Your task to perform on an android device: toggle javascript in the chrome app Image 0: 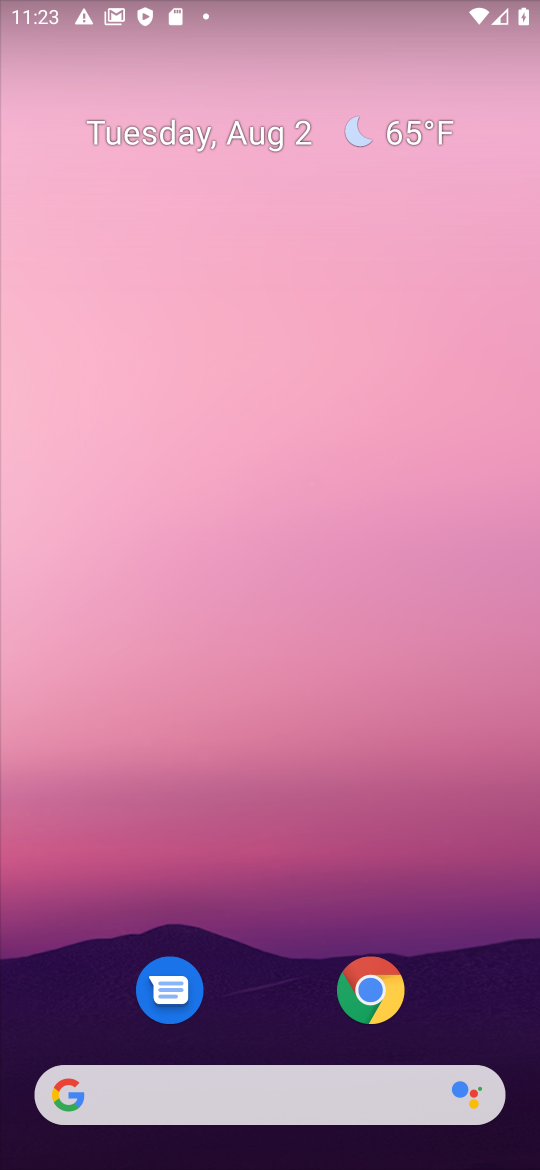
Step 0: drag from (274, 1004) to (365, 340)
Your task to perform on an android device: toggle javascript in the chrome app Image 1: 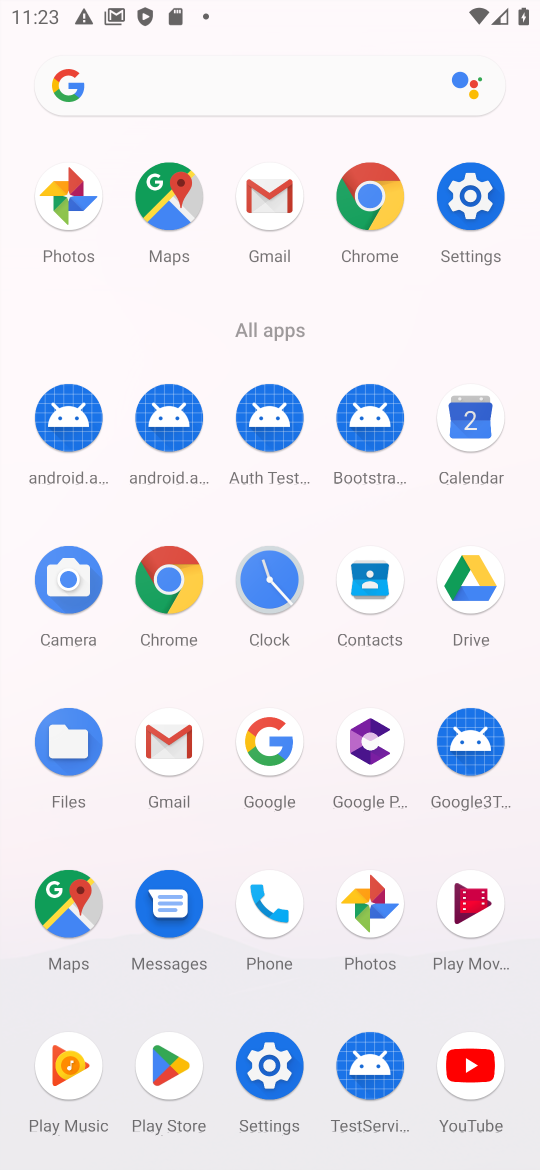
Step 1: click (147, 597)
Your task to perform on an android device: toggle javascript in the chrome app Image 2: 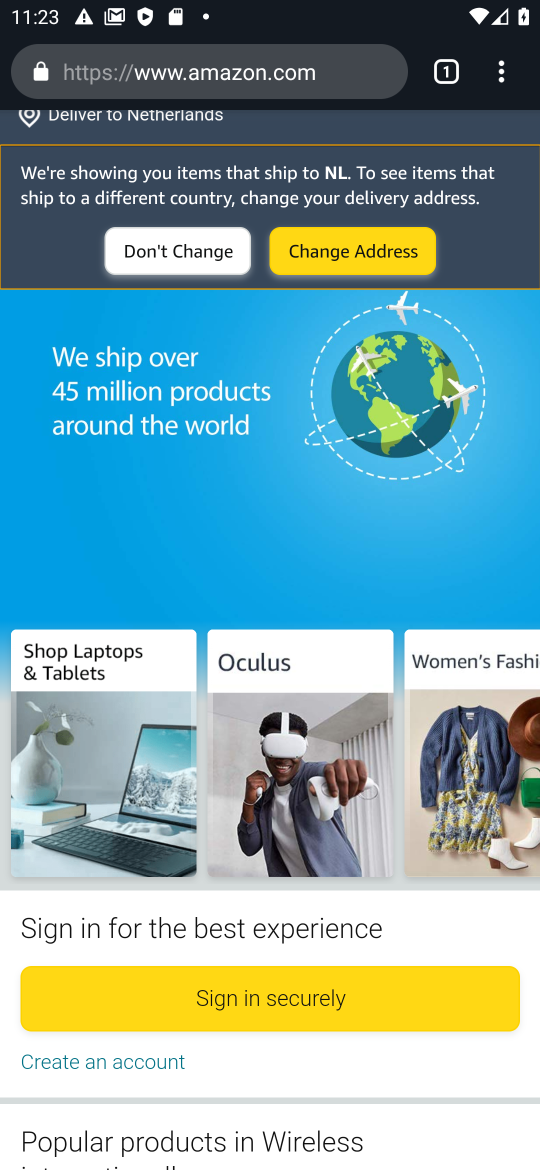
Step 2: click (516, 66)
Your task to perform on an android device: toggle javascript in the chrome app Image 3: 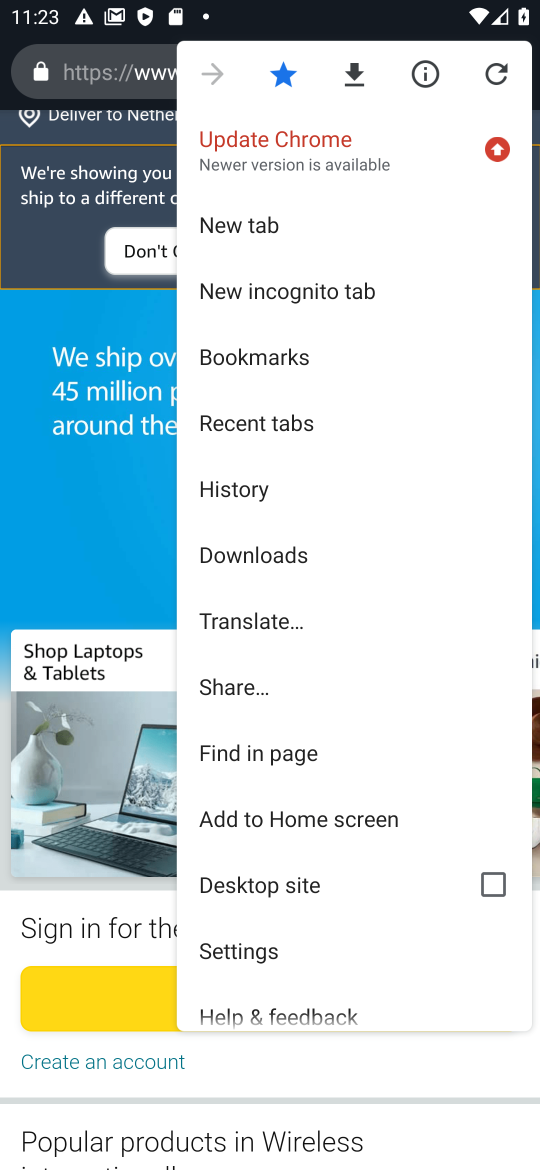
Step 3: click (237, 952)
Your task to perform on an android device: toggle javascript in the chrome app Image 4: 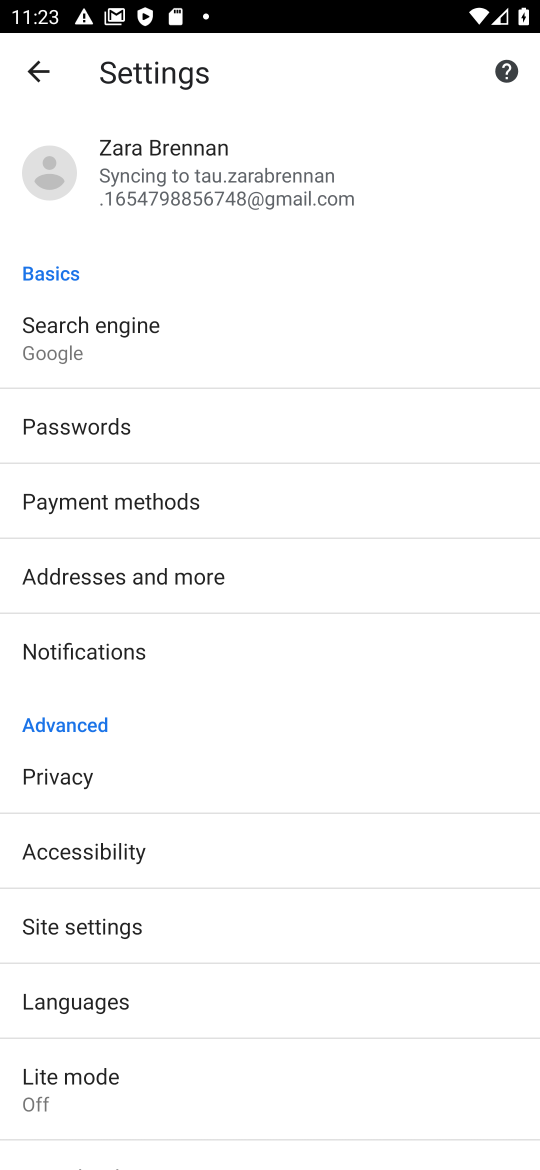
Step 4: click (122, 920)
Your task to perform on an android device: toggle javascript in the chrome app Image 5: 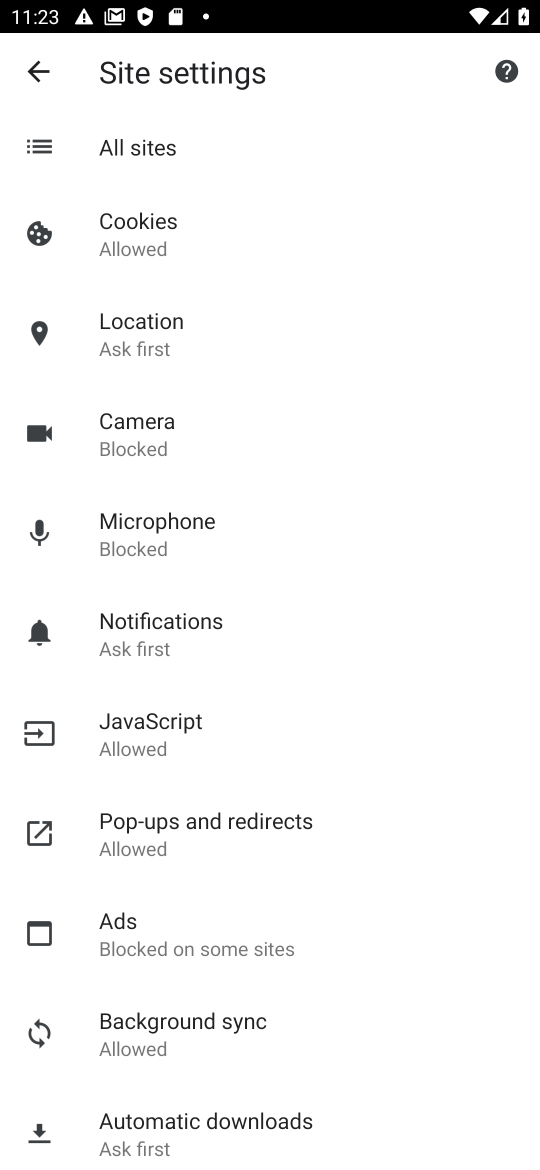
Step 5: click (178, 738)
Your task to perform on an android device: toggle javascript in the chrome app Image 6: 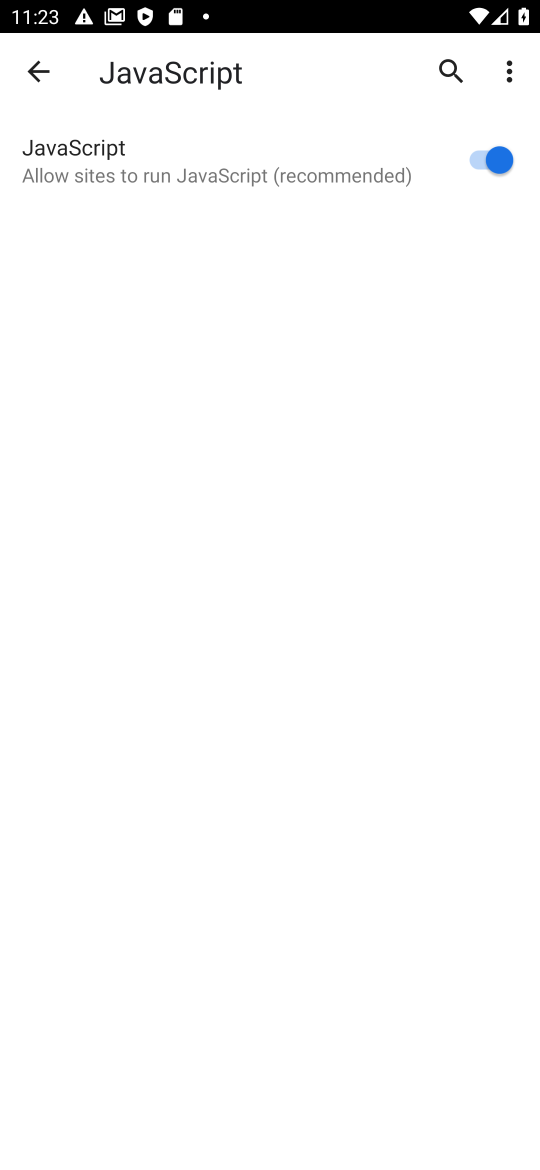
Step 6: click (450, 149)
Your task to perform on an android device: toggle javascript in the chrome app Image 7: 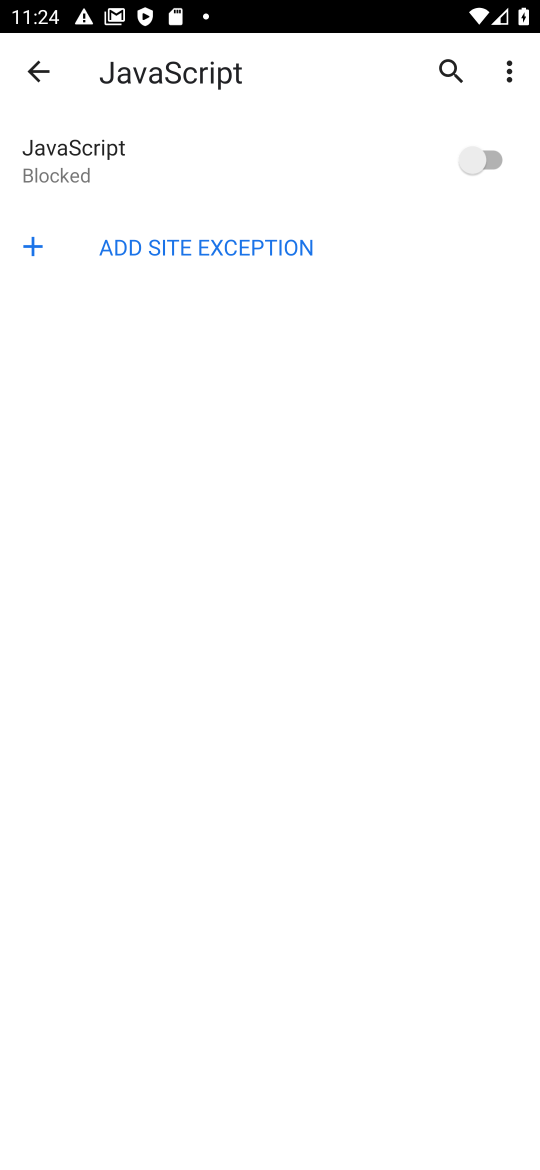
Step 7: task complete